Your task to perform on an android device: move a message to another label in the gmail app Image 0: 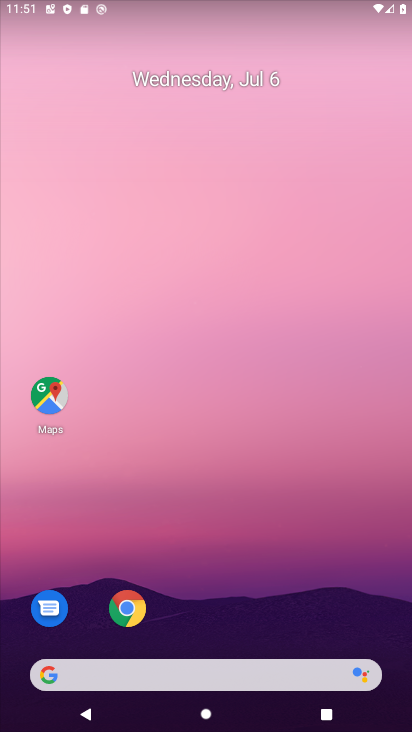
Step 0: drag from (161, 664) to (153, 164)
Your task to perform on an android device: move a message to another label in the gmail app Image 1: 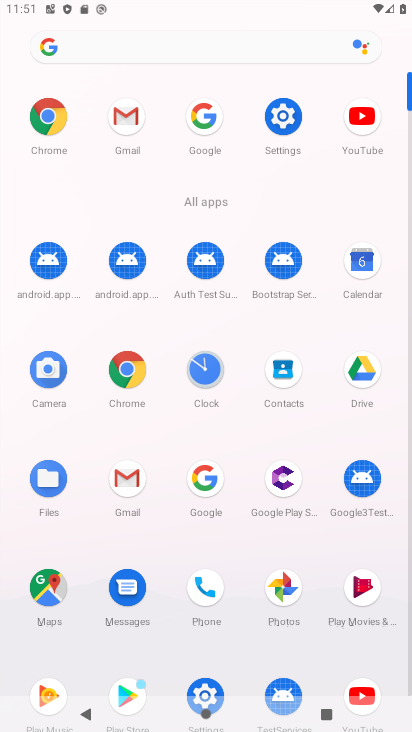
Step 1: click (132, 112)
Your task to perform on an android device: move a message to another label in the gmail app Image 2: 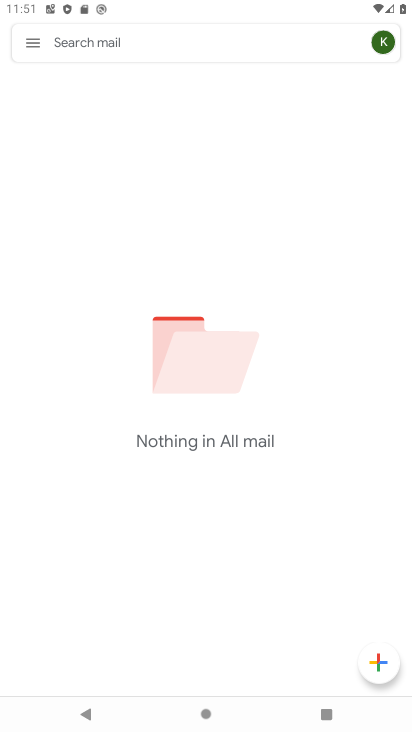
Step 2: task complete